Your task to perform on an android device: What's on my calendar today? Image 0: 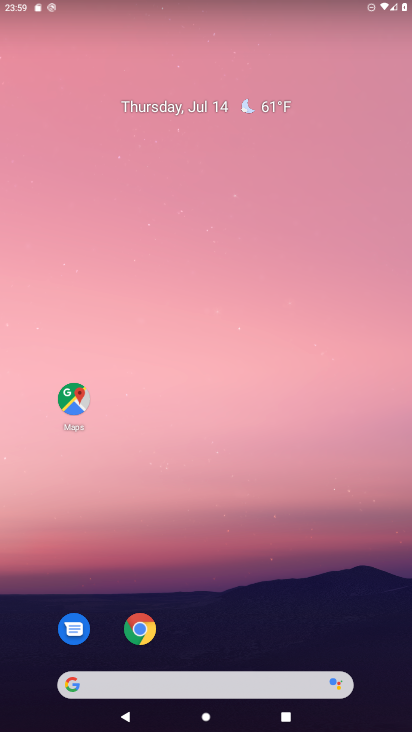
Step 0: click (189, 105)
Your task to perform on an android device: What's on my calendar today? Image 1: 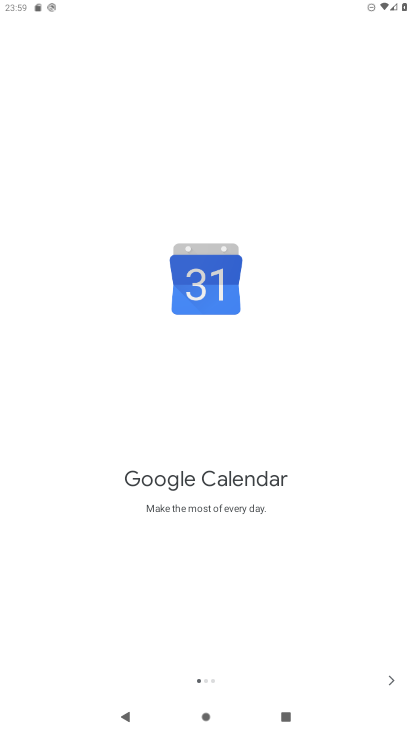
Step 1: click (385, 682)
Your task to perform on an android device: What's on my calendar today? Image 2: 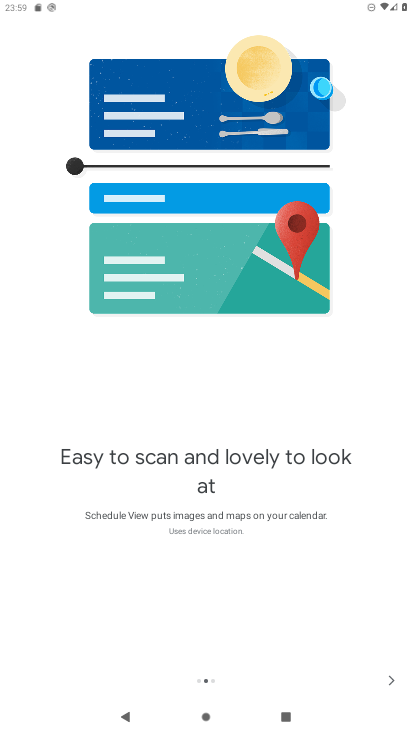
Step 2: click (385, 682)
Your task to perform on an android device: What's on my calendar today? Image 3: 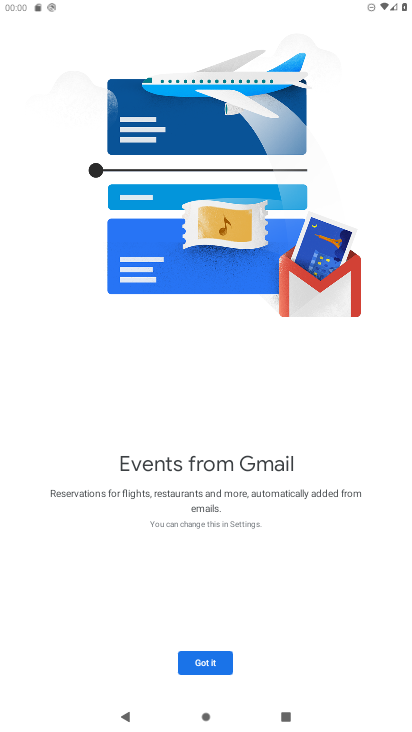
Step 3: click (220, 668)
Your task to perform on an android device: What's on my calendar today? Image 4: 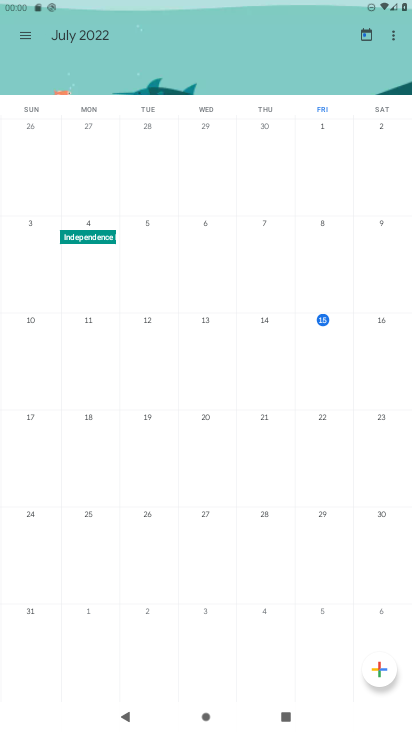
Step 4: task complete